Your task to perform on an android device: toggle improve location accuracy Image 0: 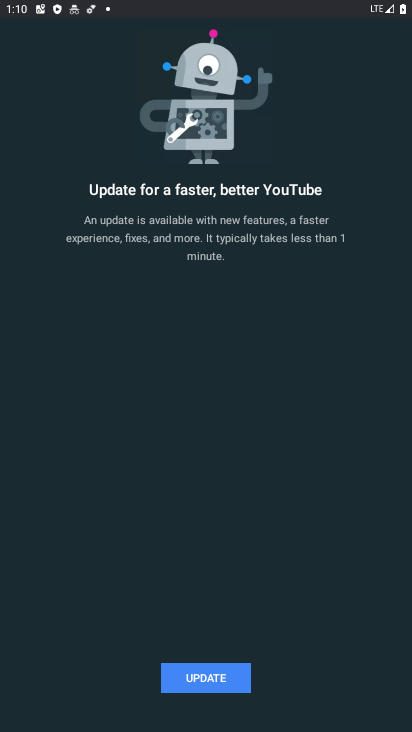
Step 0: press home button
Your task to perform on an android device: toggle improve location accuracy Image 1: 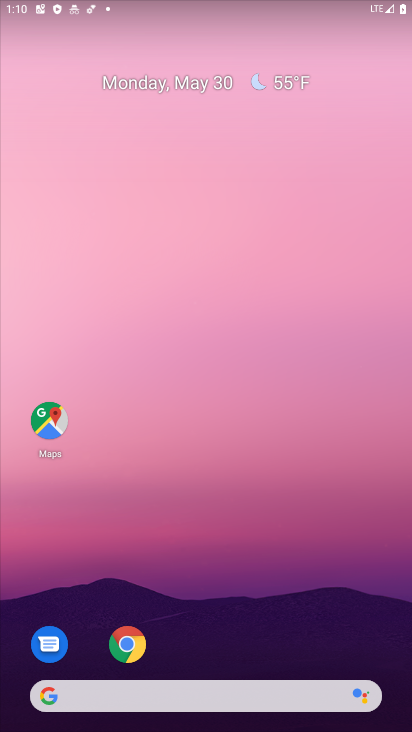
Step 1: drag from (315, 587) to (215, 125)
Your task to perform on an android device: toggle improve location accuracy Image 2: 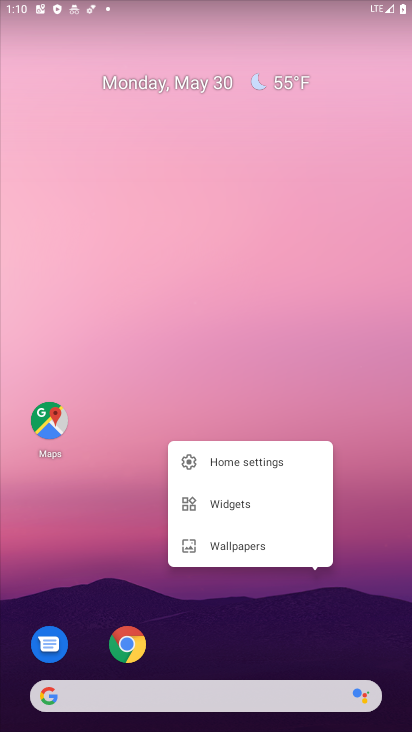
Step 2: click (250, 403)
Your task to perform on an android device: toggle improve location accuracy Image 3: 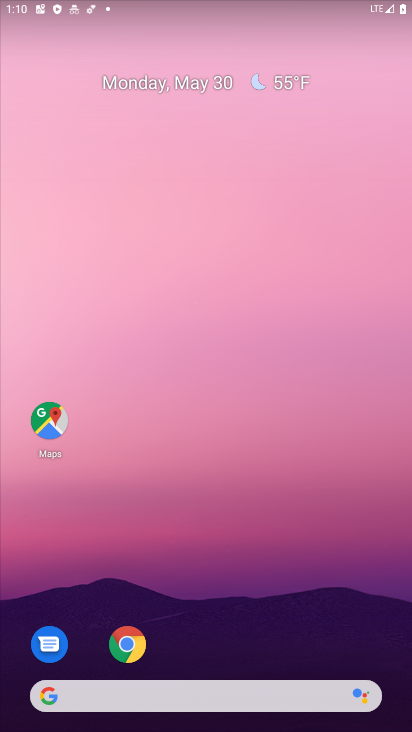
Step 3: drag from (282, 649) to (240, 8)
Your task to perform on an android device: toggle improve location accuracy Image 4: 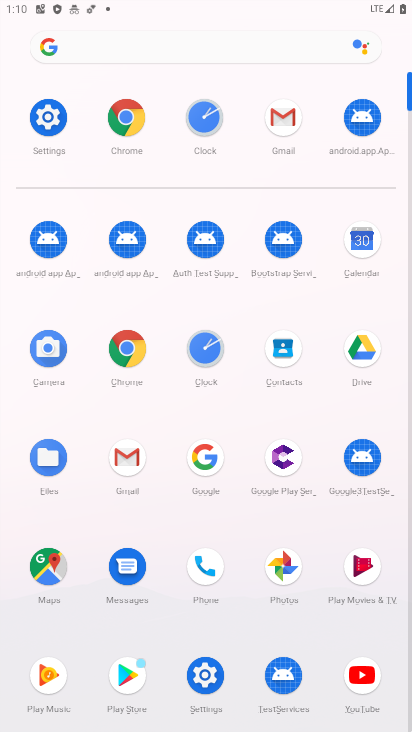
Step 4: click (58, 116)
Your task to perform on an android device: toggle improve location accuracy Image 5: 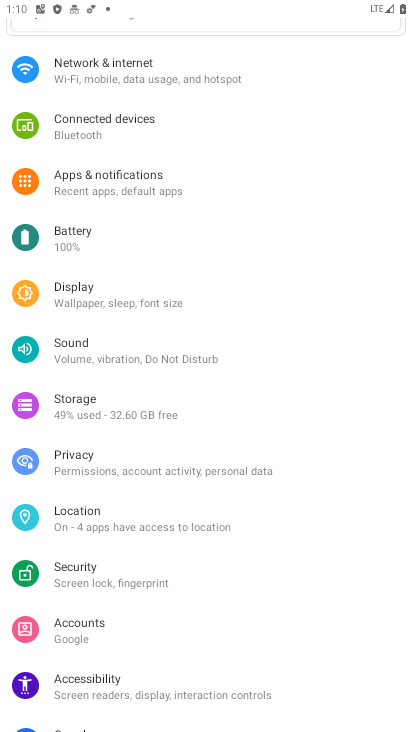
Step 5: click (218, 514)
Your task to perform on an android device: toggle improve location accuracy Image 6: 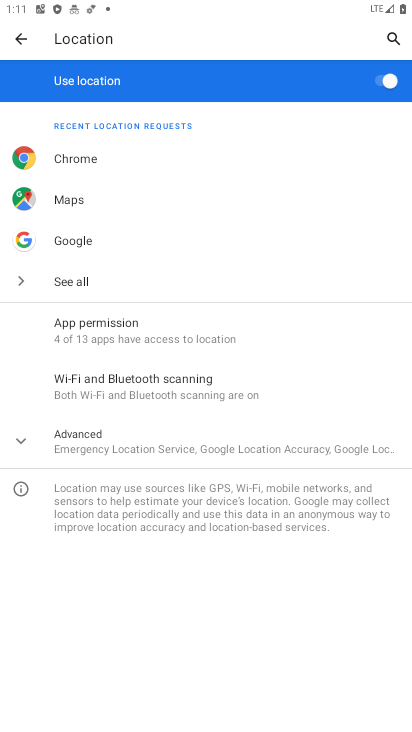
Step 6: click (185, 426)
Your task to perform on an android device: toggle improve location accuracy Image 7: 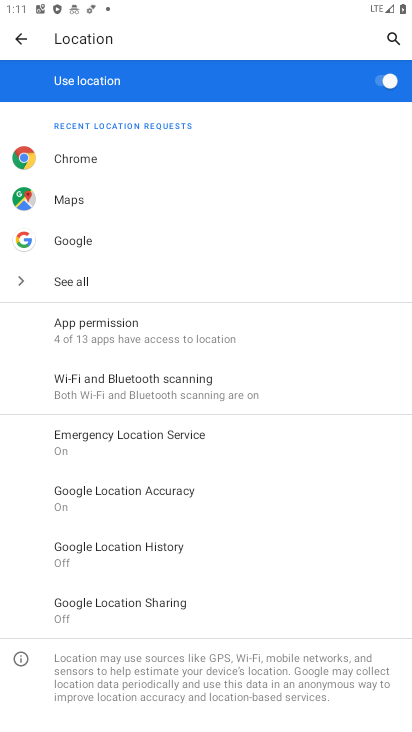
Step 7: task complete